Your task to perform on an android device: Open eBay Image 0: 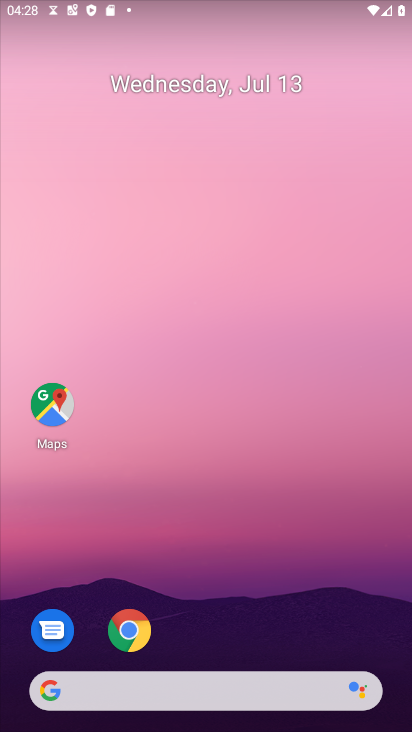
Step 0: drag from (251, 681) to (324, 92)
Your task to perform on an android device: Open eBay Image 1: 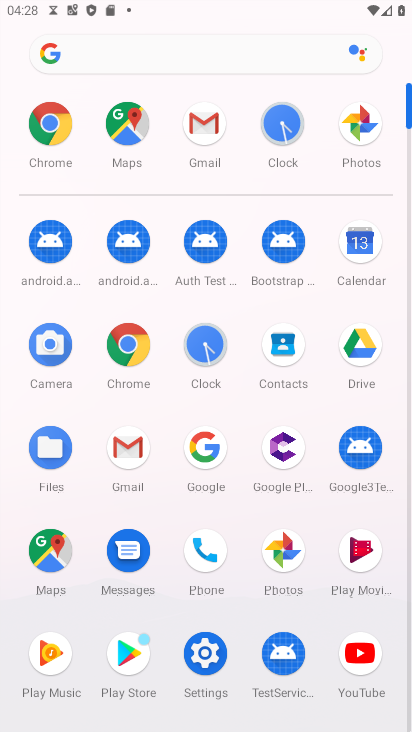
Step 1: click (147, 335)
Your task to perform on an android device: Open eBay Image 2: 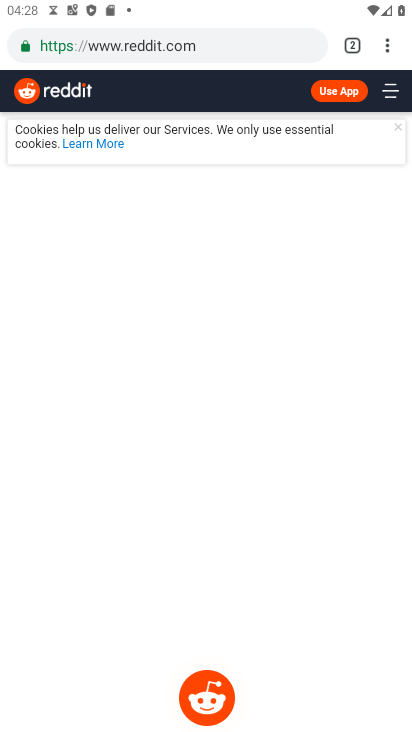
Step 2: click (184, 38)
Your task to perform on an android device: Open eBay Image 3: 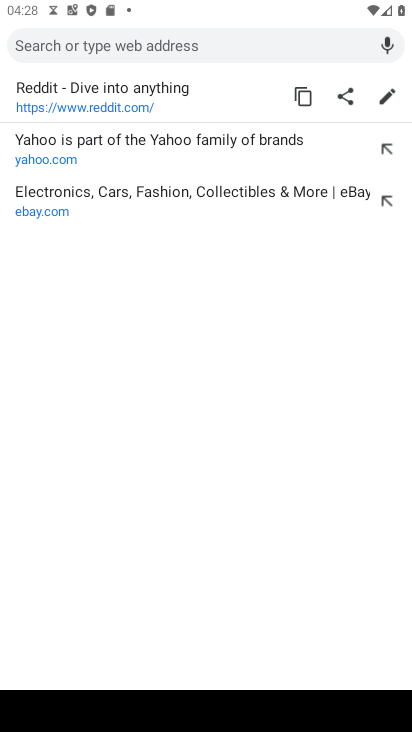
Step 3: type "ebay"
Your task to perform on an android device: Open eBay Image 4: 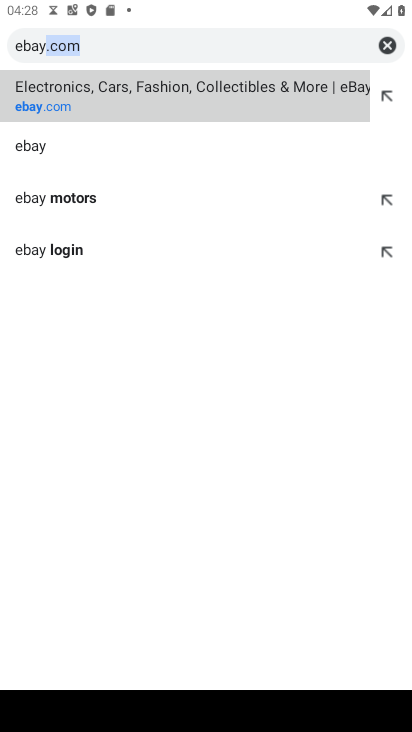
Step 4: click (86, 108)
Your task to perform on an android device: Open eBay Image 5: 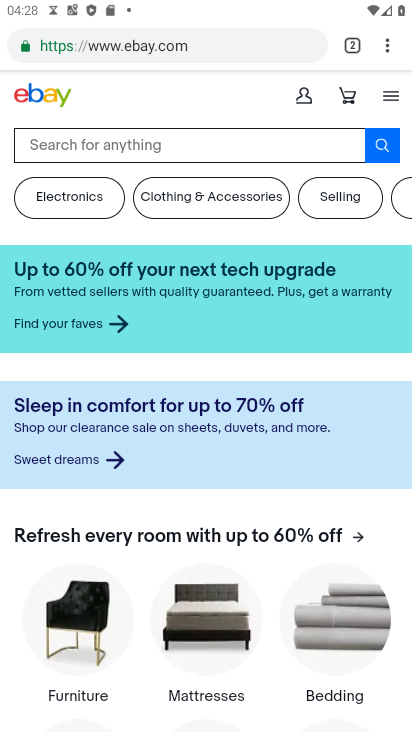
Step 5: task complete